Your task to perform on an android device: What's the weather going to be tomorrow? Image 0: 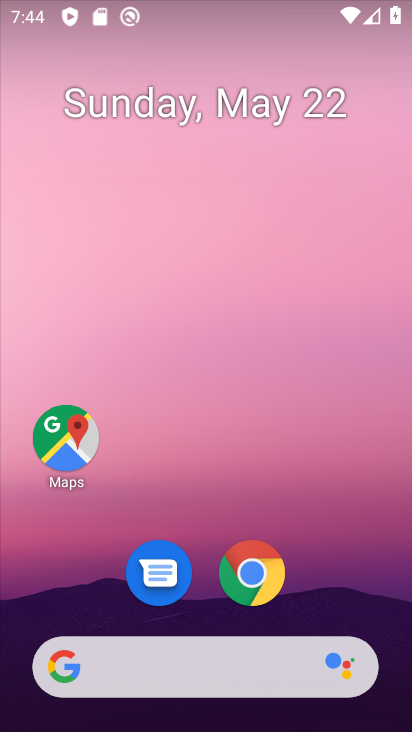
Step 0: drag from (362, 557) to (387, 106)
Your task to perform on an android device: What's the weather going to be tomorrow? Image 1: 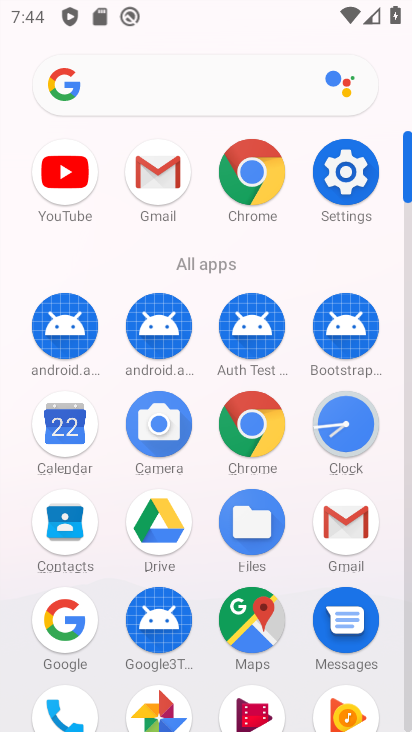
Step 1: click (239, 447)
Your task to perform on an android device: What's the weather going to be tomorrow? Image 2: 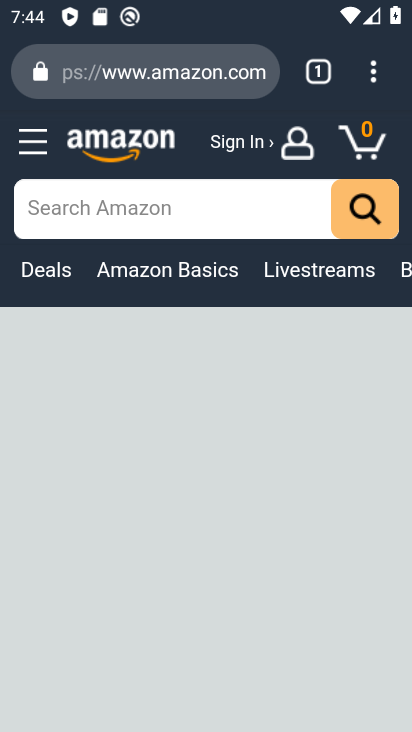
Step 2: click (318, 72)
Your task to perform on an android device: What's the weather going to be tomorrow? Image 3: 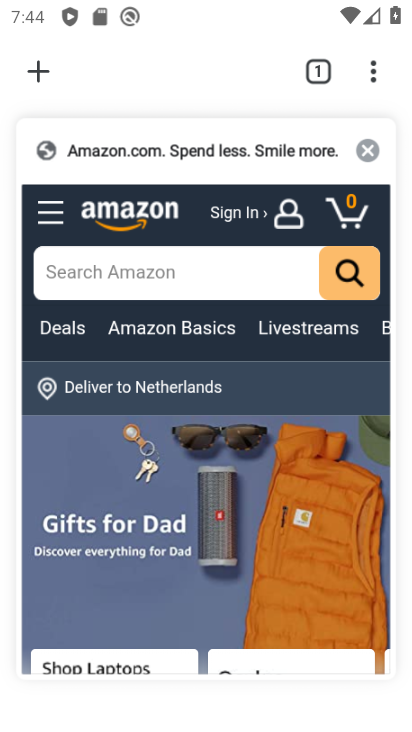
Step 3: click (45, 78)
Your task to perform on an android device: What's the weather going to be tomorrow? Image 4: 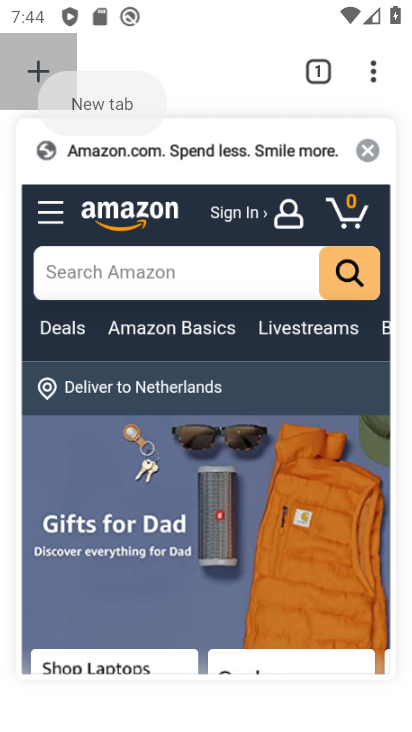
Step 4: click (43, 78)
Your task to perform on an android device: What's the weather going to be tomorrow? Image 5: 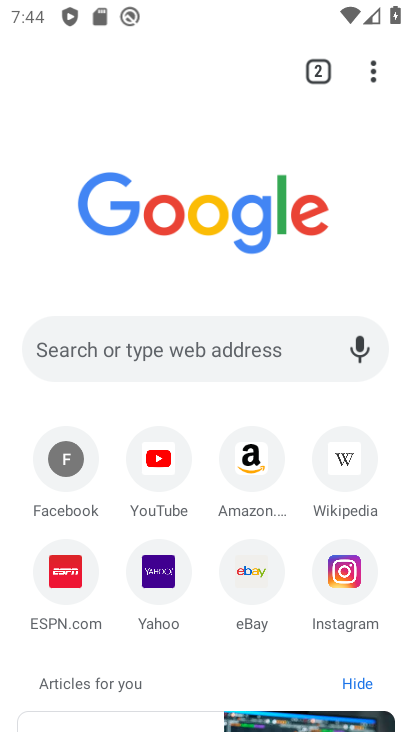
Step 5: click (201, 350)
Your task to perform on an android device: What's the weather going to be tomorrow? Image 6: 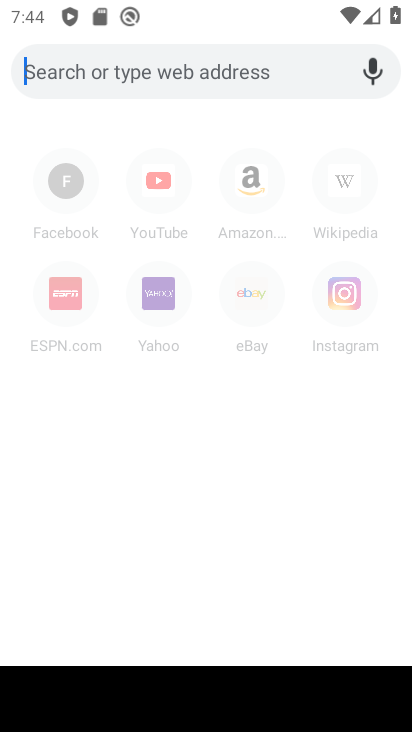
Step 6: type "what's the weather going to be tomorrow"
Your task to perform on an android device: What's the weather going to be tomorrow? Image 7: 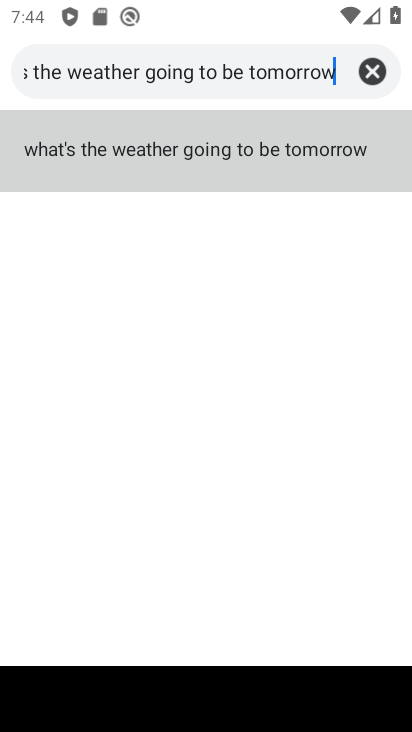
Step 7: click (279, 173)
Your task to perform on an android device: What's the weather going to be tomorrow? Image 8: 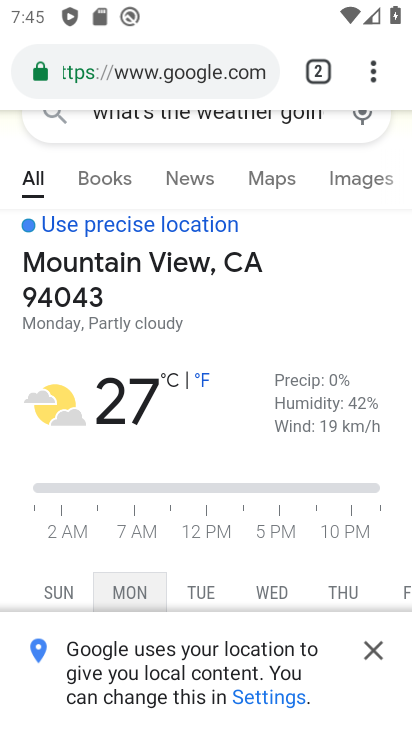
Step 8: task complete